Your task to perform on an android device: When is my next meeting? Image 0: 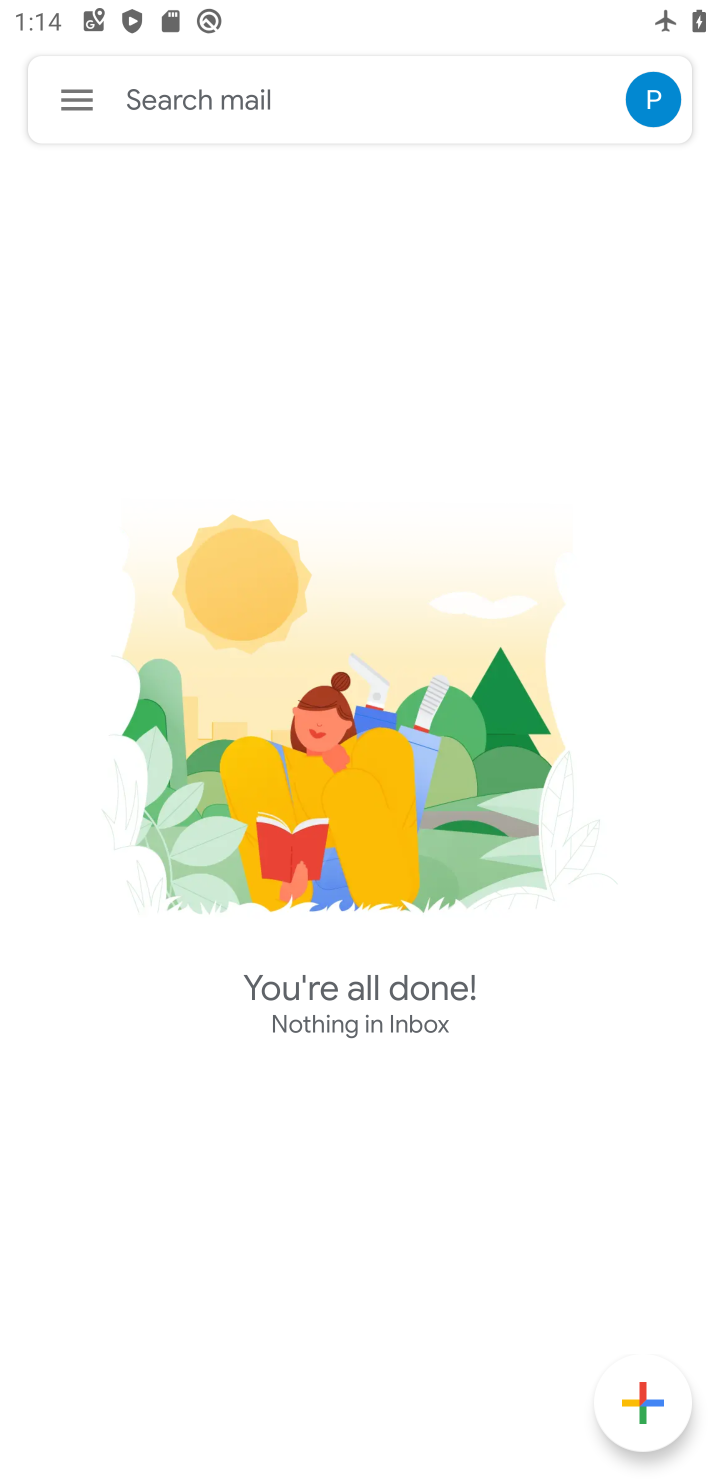
Step 0: press home button
Your task to perform on an android device: When is my next meeting? Image 1: 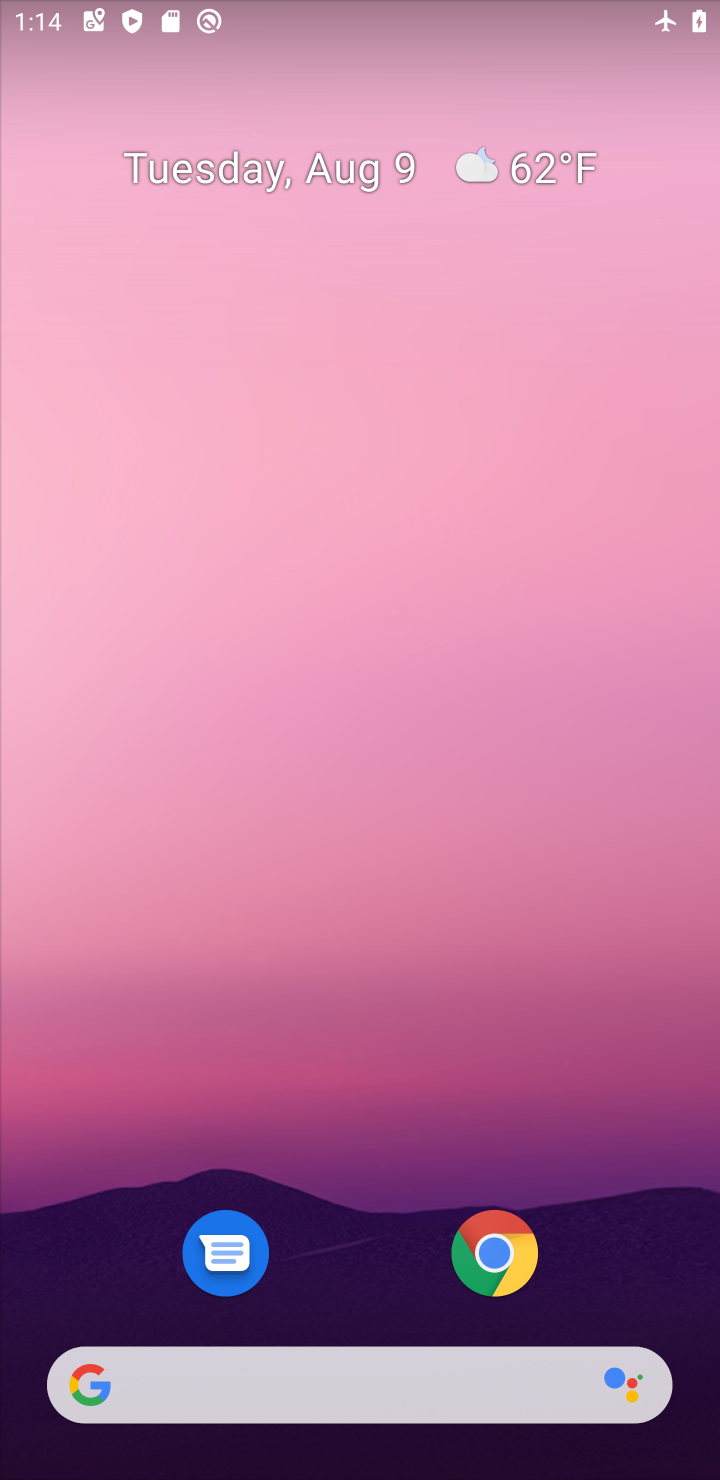
Step 1: drag from (676, 1219) to (335, 48)
Your task to perform on an android device: When is my next meeting? Image 2: 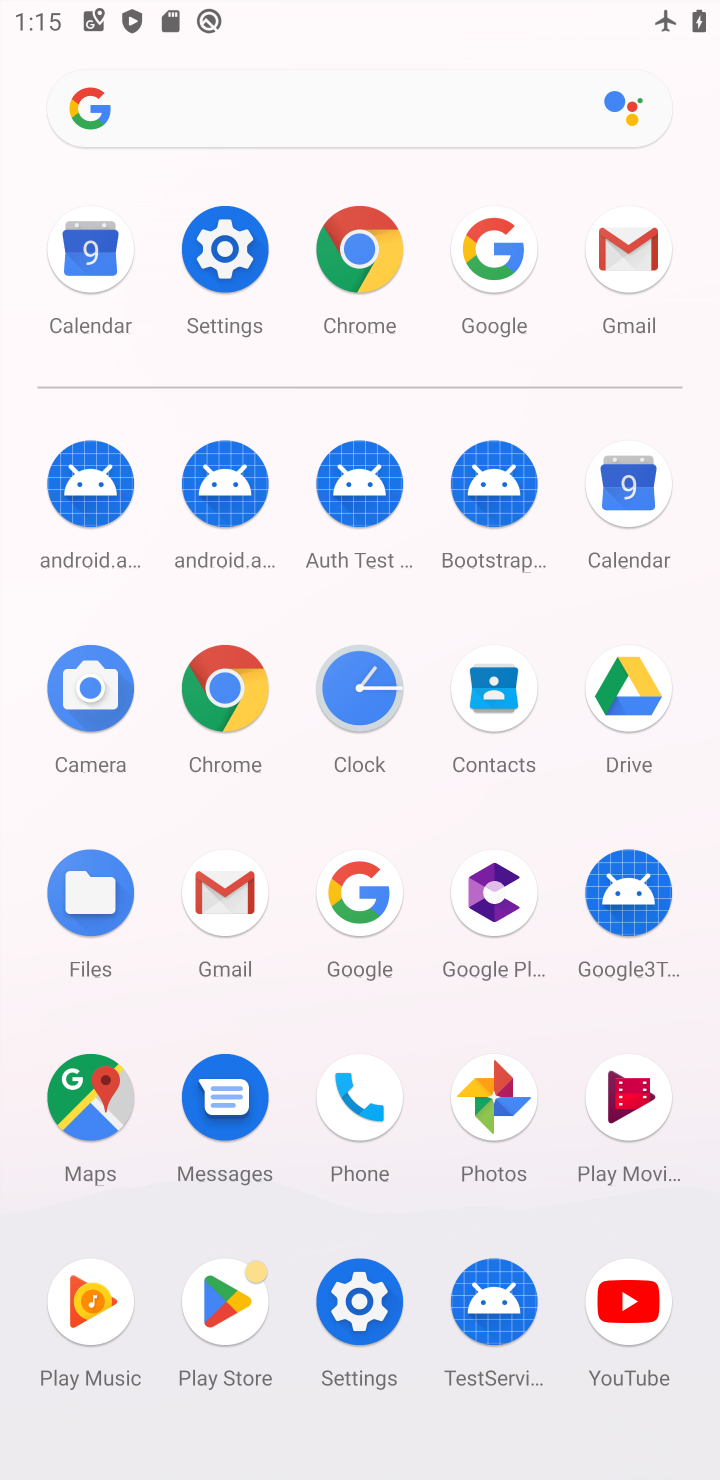
Step 2: click (630, 520)
Your task to perform on an android device: When is my next meeting? Image 3: 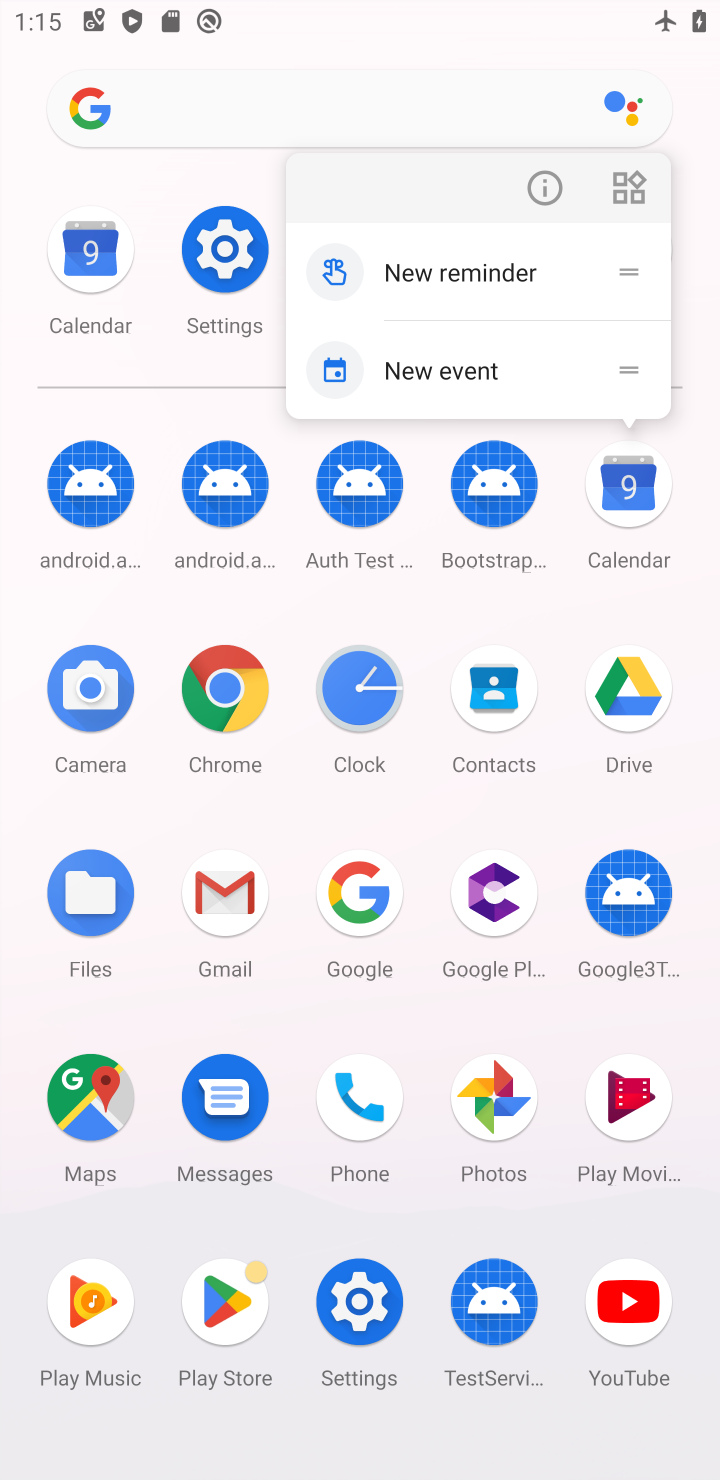
Step 3: click (630, 520)
Your task to perform on an android device: When is my next meeting? Image 4: 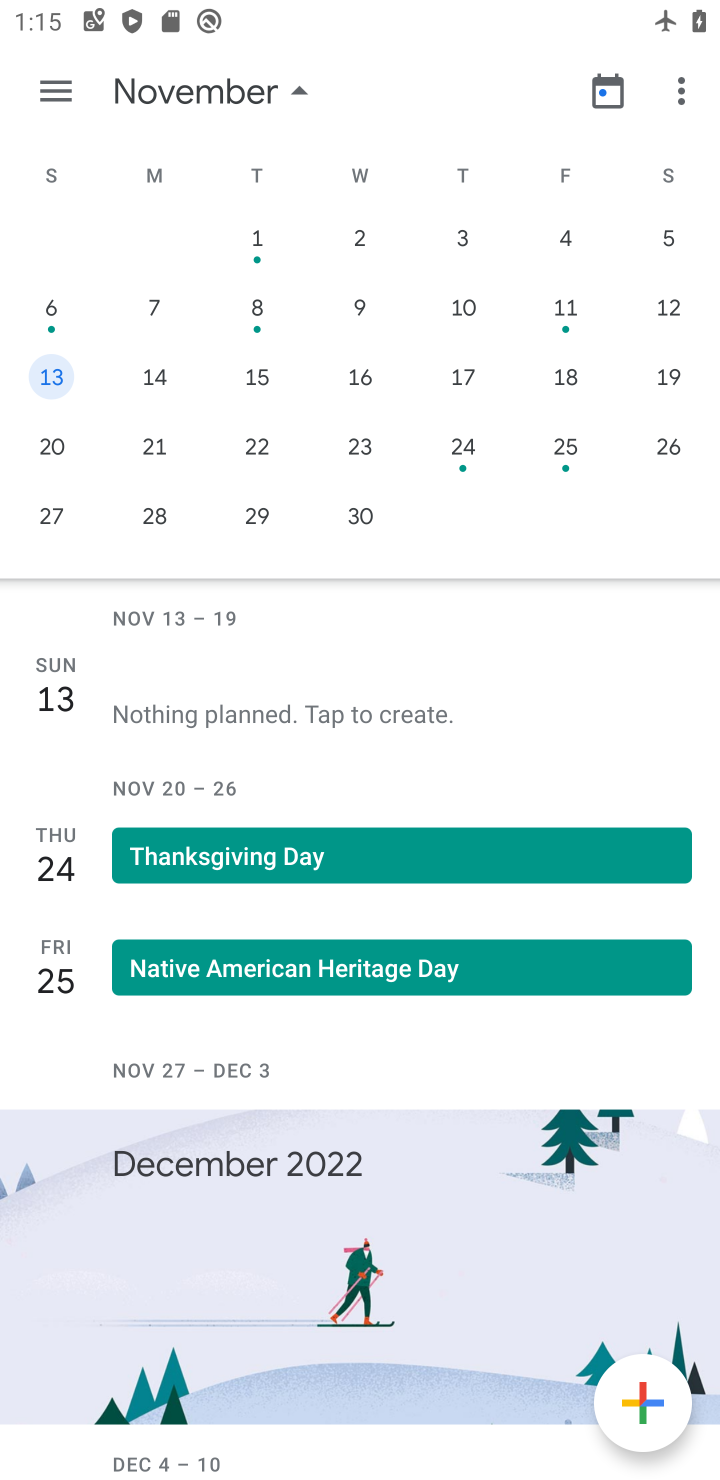
Step 4: task complete